Your task to perform on an android device: Search for pizza restaurants on Maps Image 0: 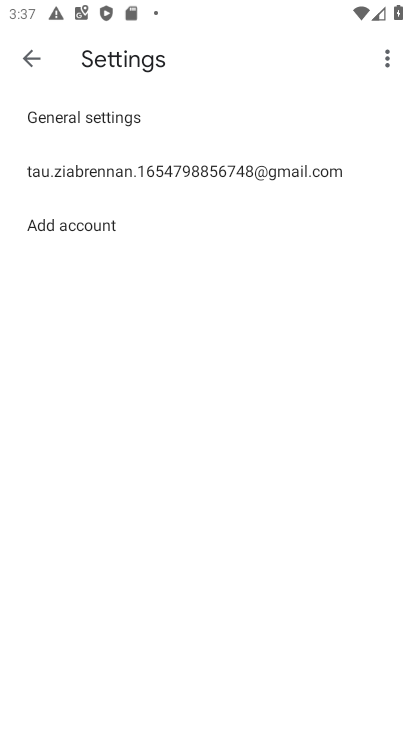
Step 0: press home button
Your task to perform on an android device: Search for pizza restaurants on Maps Image 1: 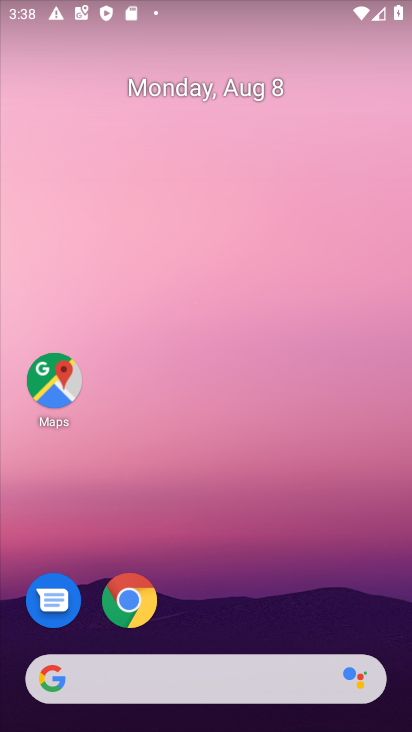
Step 1: click (54, 374)
Your task to perform on an android device: Search for pizza restaurants on Maps Image 2: 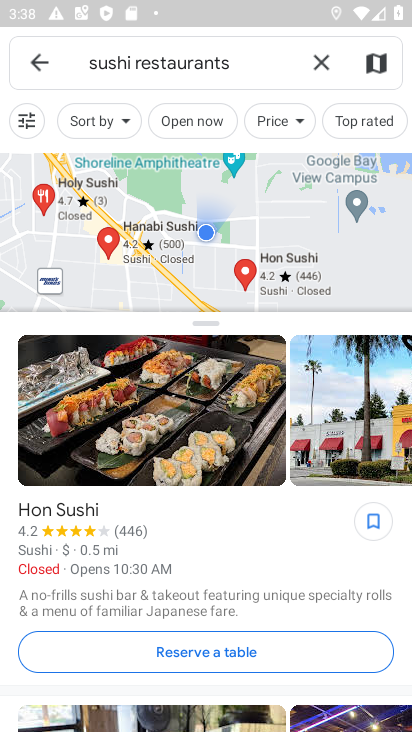
Step 2: click (313, 63)
Your task to perform on an android device: Search for pizza restaurants on Maps Image 3: 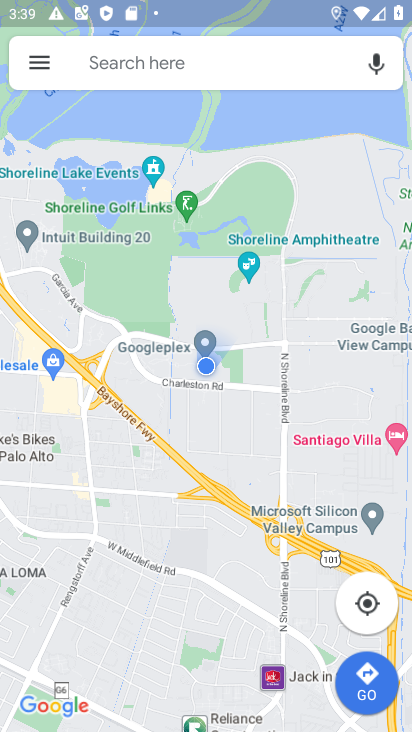
Step 3: click (179, 77)
Your task to perform on an android device: Search for pizza restaurants on Maps Image 4: 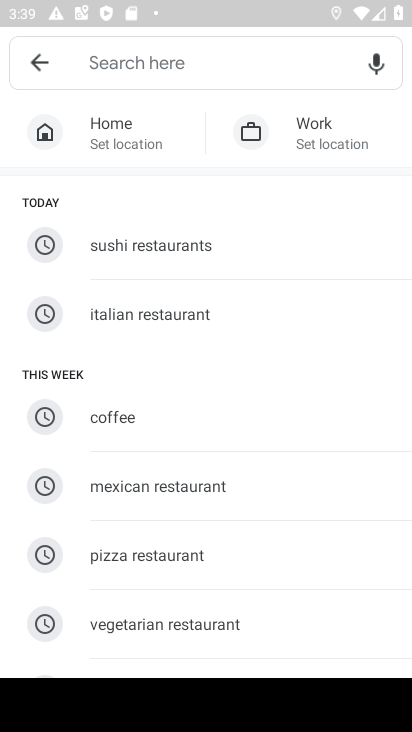
Step 4: type "pizza restaurants"
Your task to perform on an android device: Search for pizza restaurants on Maps Image 5: 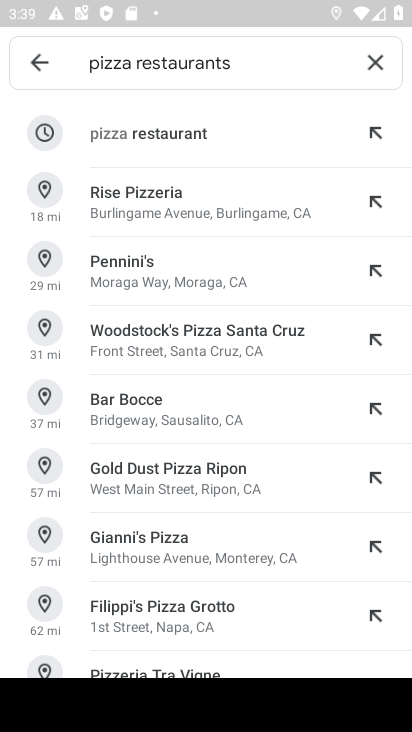
Step 5: click (180, 139)
Your task to perform on an android device: Search for pizza restaurants on Maps Image 6: 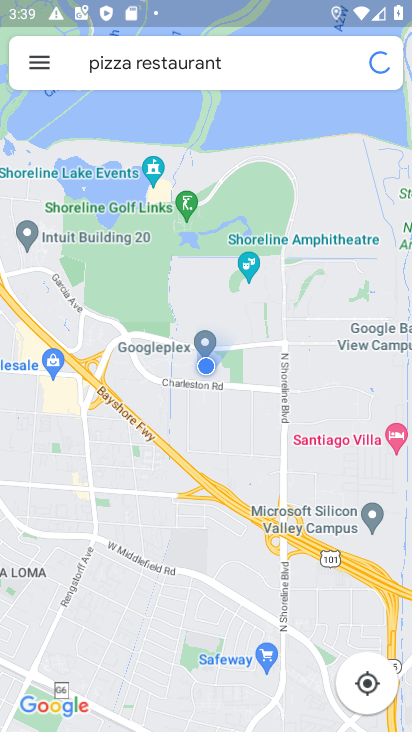
Step 6: click (180, 130)
Your task to perform on an android device: Search for pizza restaurants on Maps Image 7: 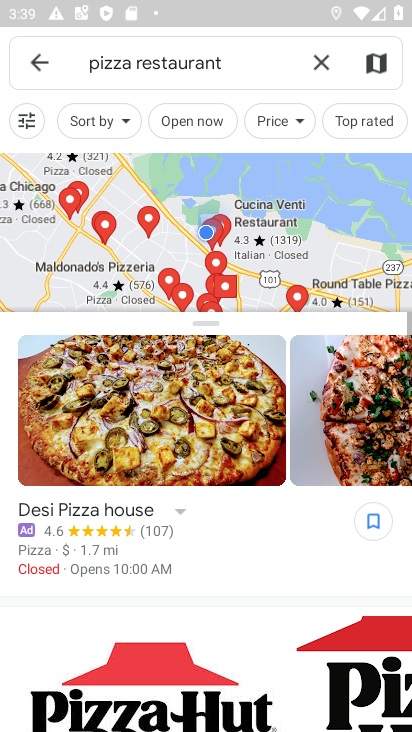
Step 7: task complete